Your task to perform on an android device: all mails in gmail Image 0: 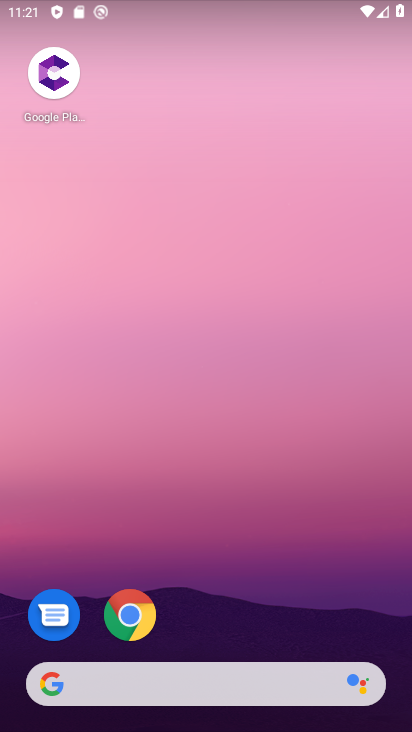
Step 0: drag from (305, 561) to (247, 1)
Your task to perform on an android device: all mails in gmail Image 1: 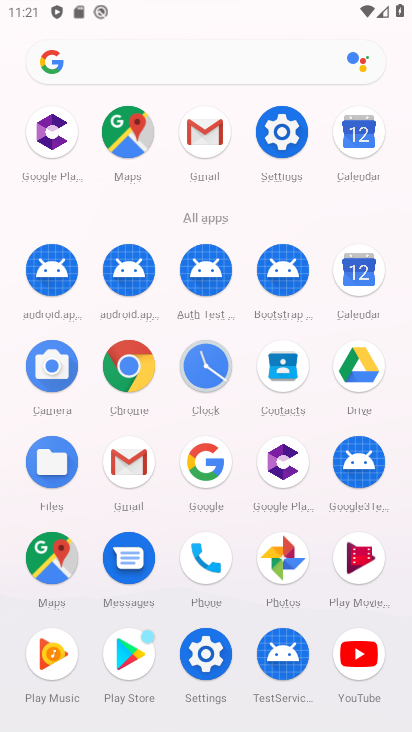
Step 1: click (200, 134)
Your task to perform on an android device: all mails in gmail Image 2: 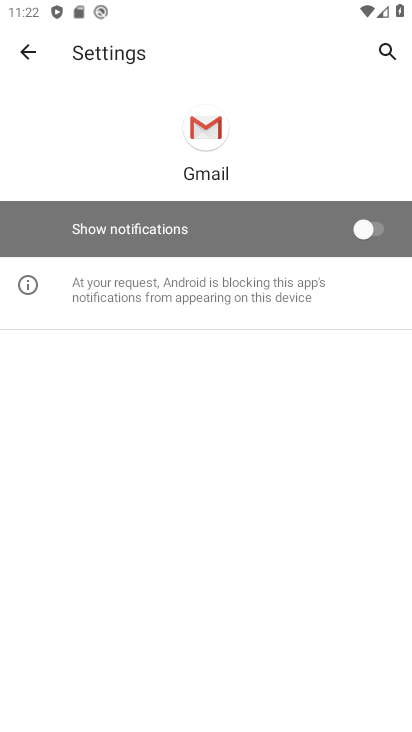
Step 2: click (21, 49)
Your task to perform on an android device: all mails in gmail Image 3: 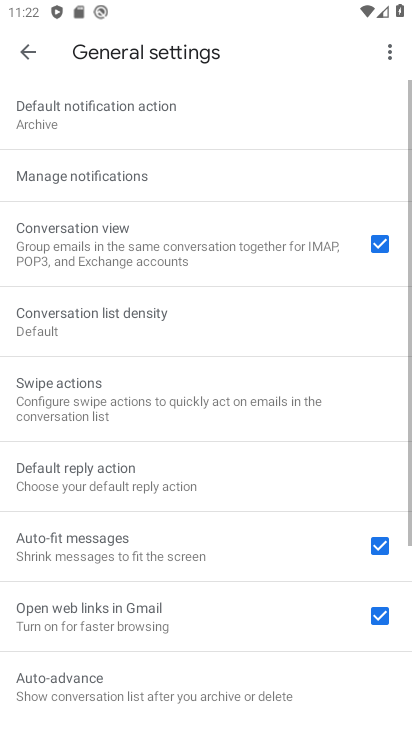
Step 3: click (24, 50)
Your task to perform on an android device: all mails in gmail Image 4: 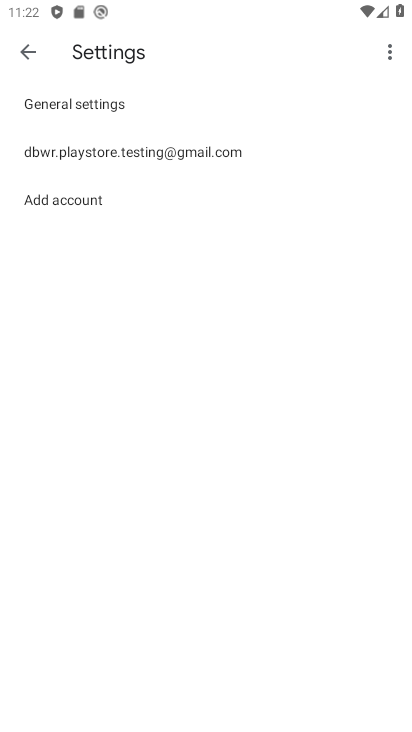
Step 4: click (28, 49)
Your task to perform on an android device: all mails in gmail Image 5: 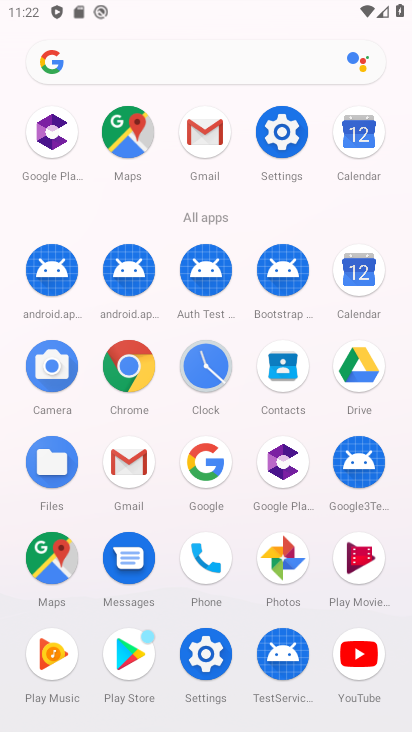
Step 5: click (201, 122)
Your task to perform on an android device: all mails in gmail Image 6: 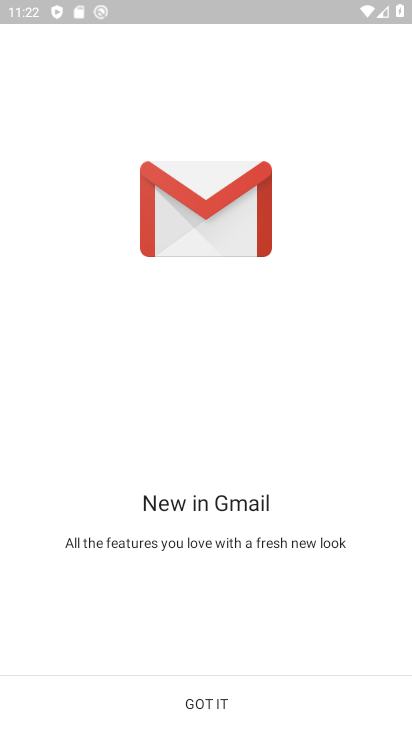
Step 6: click (254, 696)
Your task to perform on an android device: all mails in gmail Image 7: 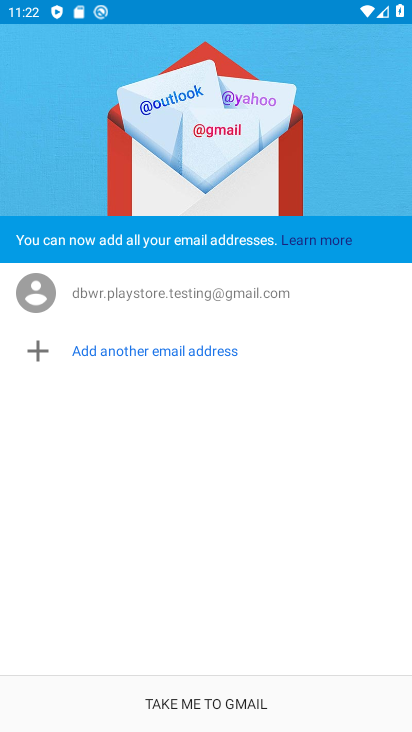
Step 7: click (255, 697)
Your task to perform on an android device: all mails in gmail Image 8: 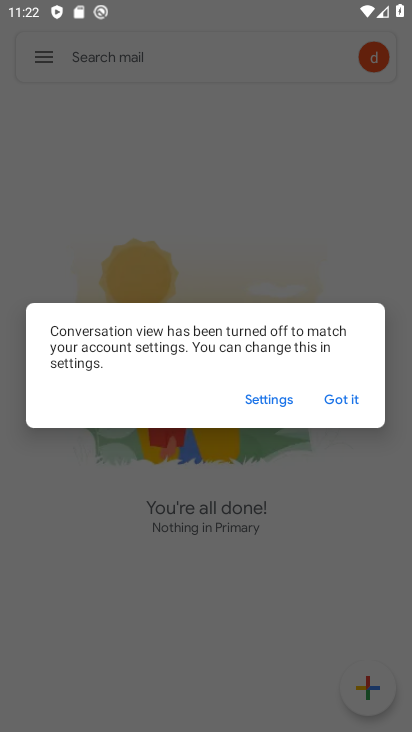
Step 8: click (354, 397)
Your task to perform on an android device: all mails in gmail Image 9: 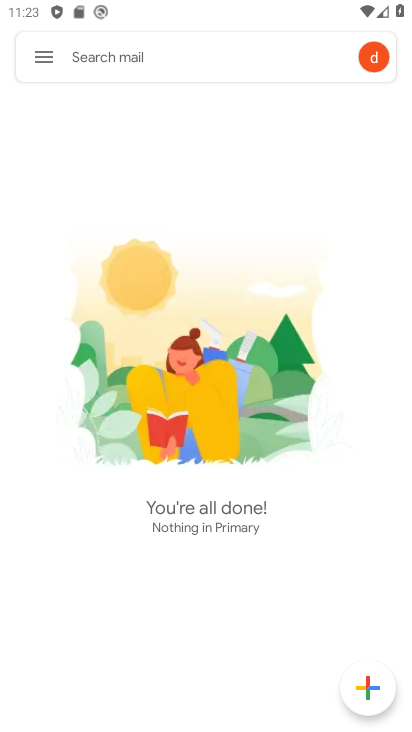
Step 9: click (39, 54)
Your task to perform on an android device: all mails in gmail Image 10: 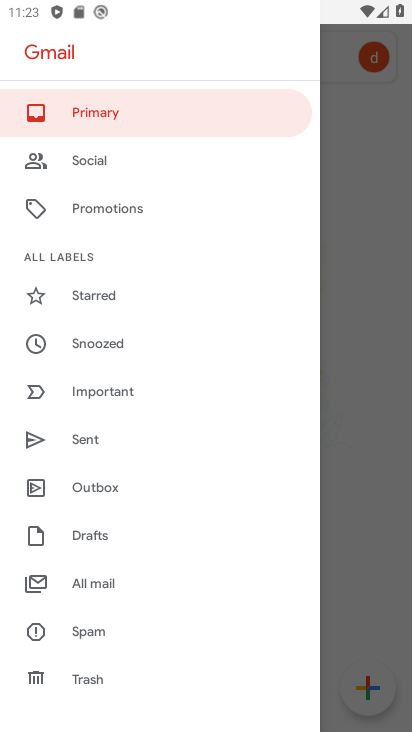
Step 10: click (122, 579)
Your task to perform on an android device: all mails in gmail Image 11: 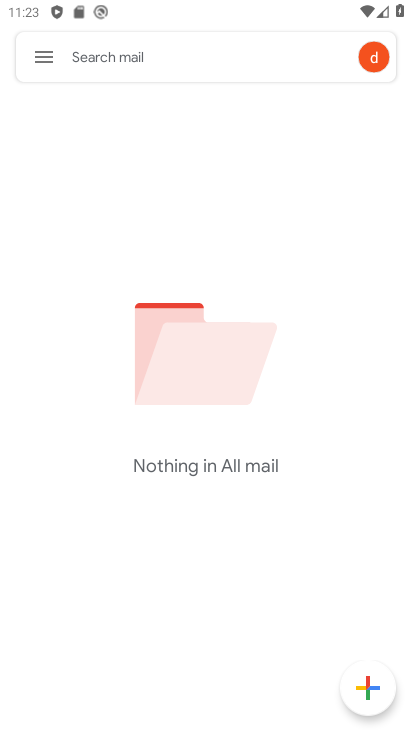
Step 11: task complete